Your task to perform on an android device: Look up the best rated bike seats on Target Image 0: 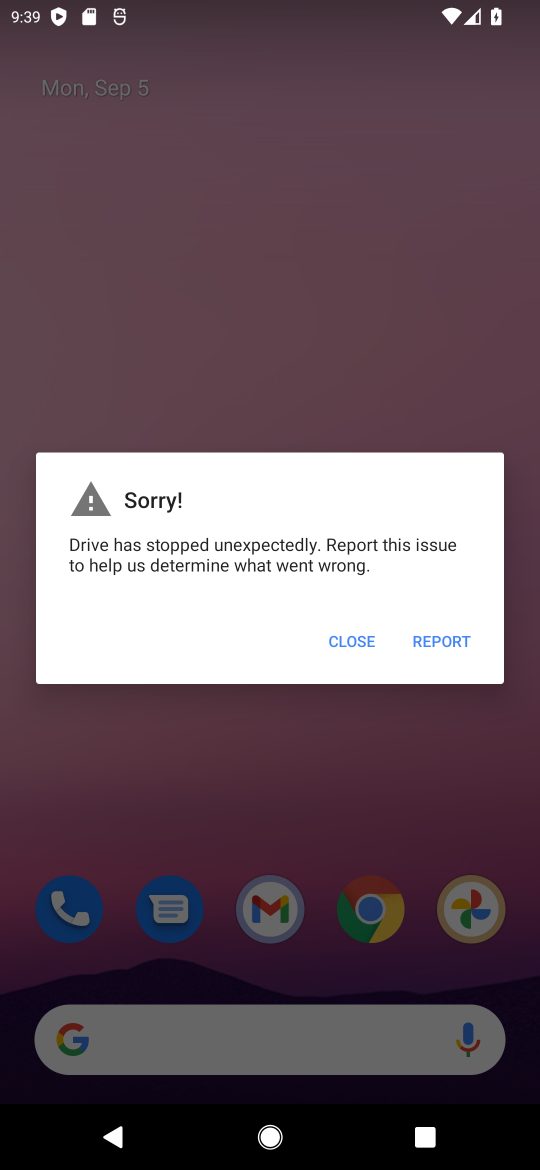
Step 0: click (370, 653)
Your task to perform on an android device: Look up the best rated bike seats on Target Image 1: 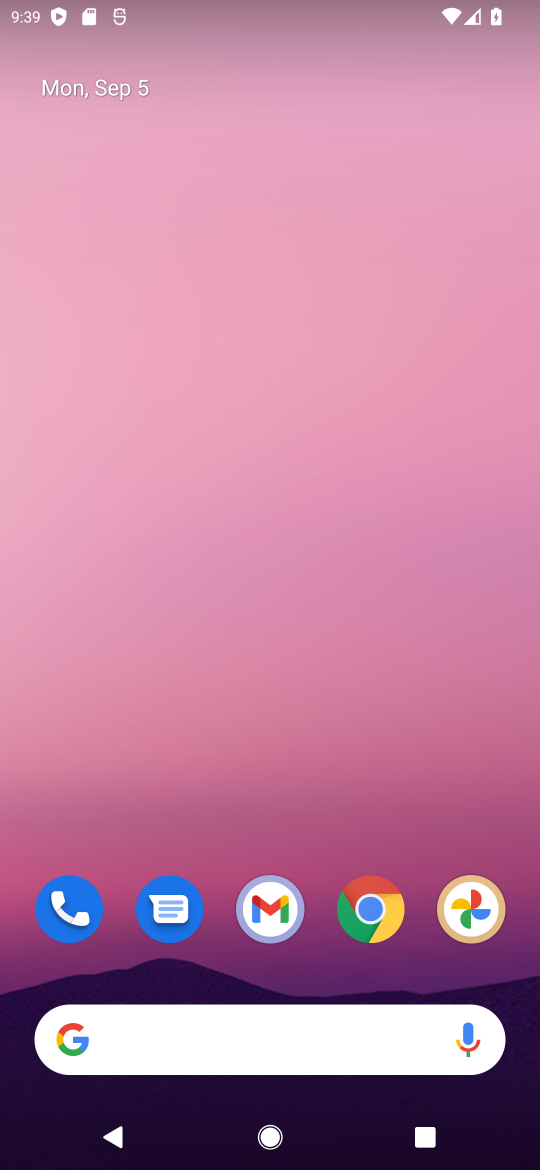
Step 1: click (269, 894)
Your task to perform on an android device: Look up the best rated bike seats on Target Image 2: 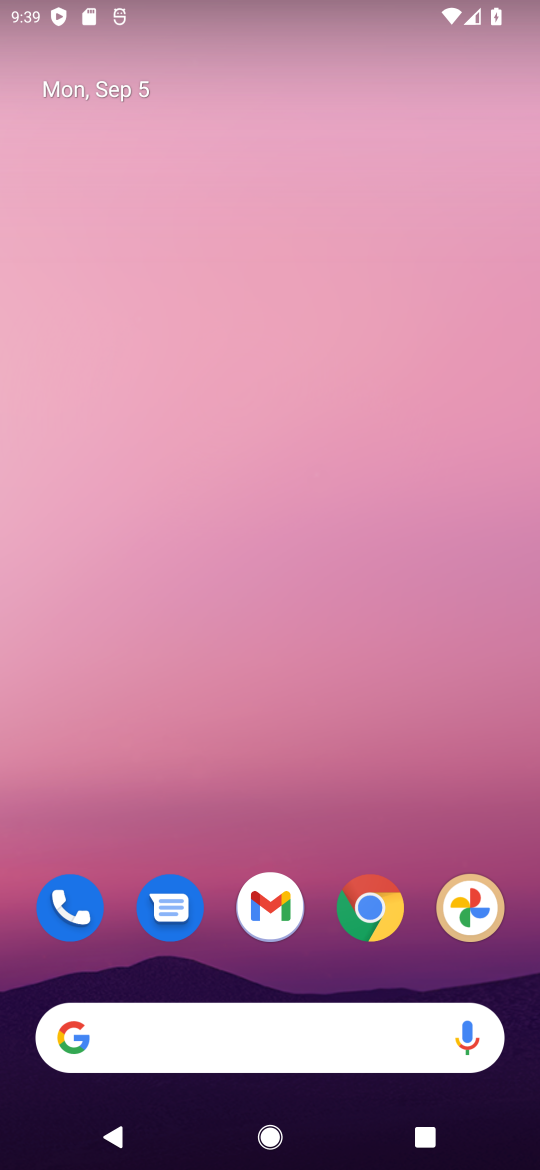
Step 2: task complete